Your task to perform on an android device: add a label to a message in the gmail app Image 0: 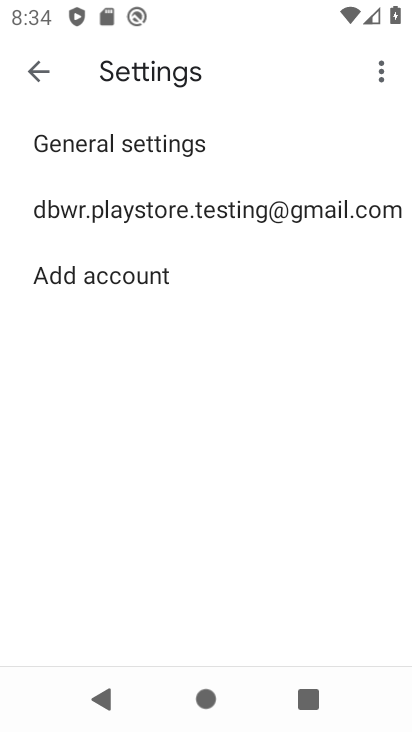
Step 0: press home button
Your task to perform on an android device: add a label to a message in the gmail app Image 1: 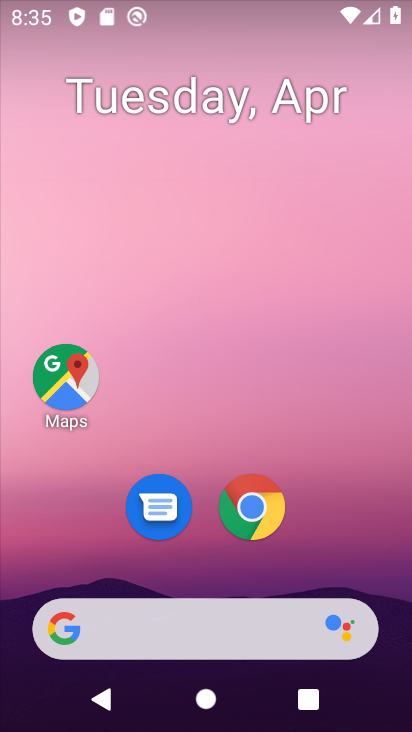
Step 1: drag from (193, 576) to (215, 161)
Your task to perform on an android device: add a label to a message in the gmail app Image 2: 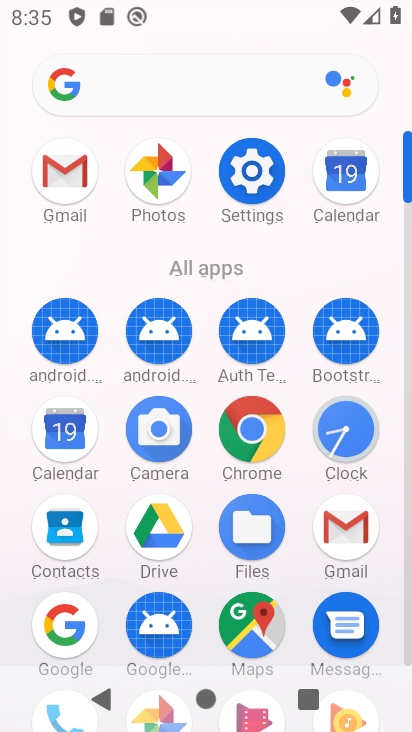
Step 2: click (324, 553)
Your task to perform on an android device: add a label to a message in the gmail app Image 3: 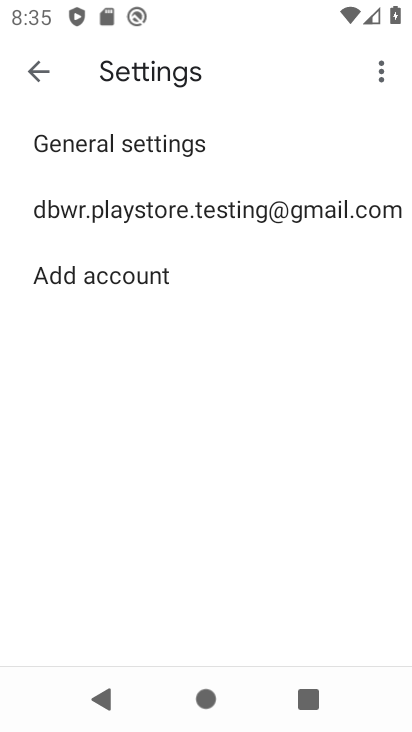
Step 3: click (21, 61)
Your task to perform on an android device: add a label to a message in the gmail app Image 4: 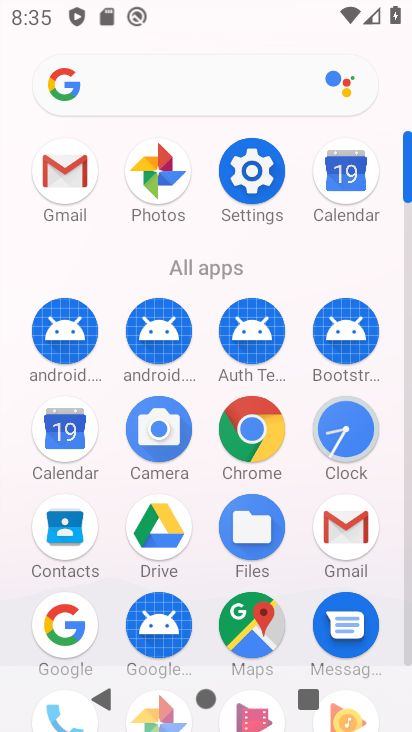
Step 4: click (332, 524)
Your task to perform on an android device: add a label to a message in the gmail app Image 5: 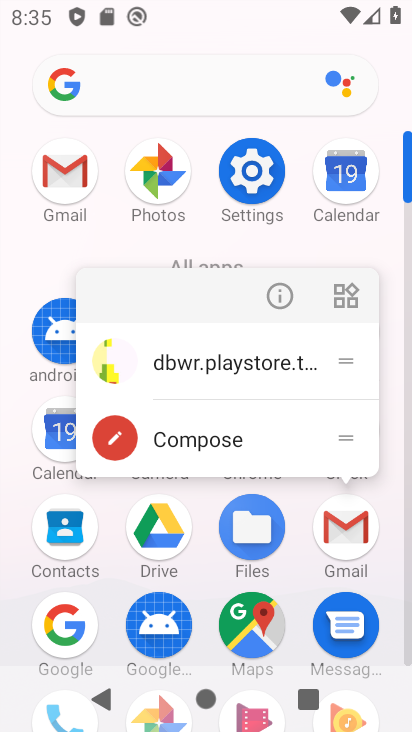
Step 5: click (327, 511)
Your task to perform on an android device: add a label to a message in the gmail app Image 6: 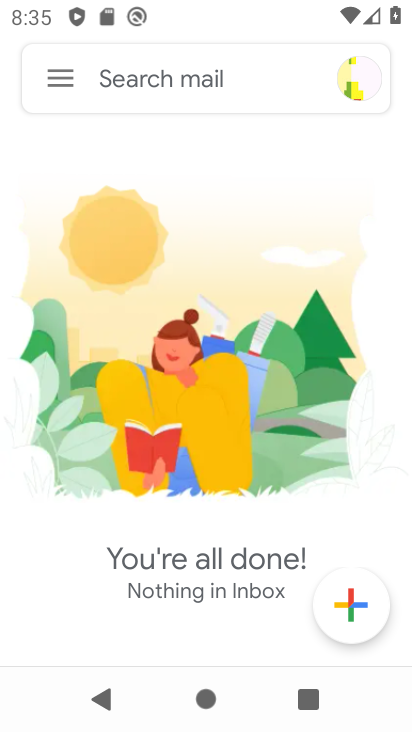
Step 6: click (61, 81)
Your task to perform on an android device: add a label to a message in the gmail app Image 7: 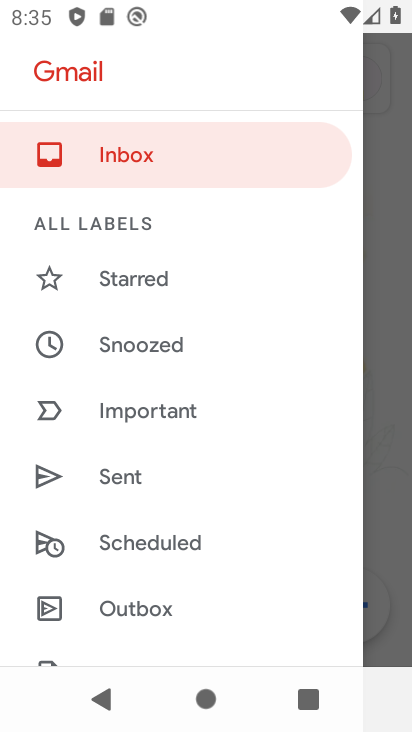
Step 7: drag from (175, 601) to (212, 267)
Your task to perform on an android device: add a label to a message in the gmail app Image 8: 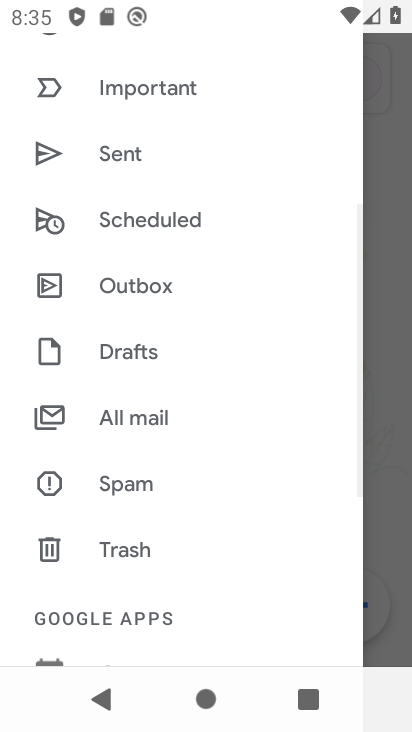
Step 8: click (172, 417)
Your task to perform on an android device: add a label to a message in the gmail app Image 9: 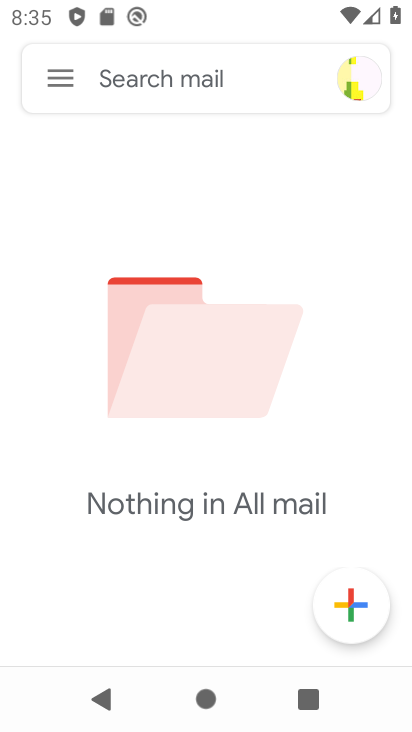
Step 9: task complete